Your task to perform on an android device: Open the Play Movies app and select the watchlist tab. Image 0: 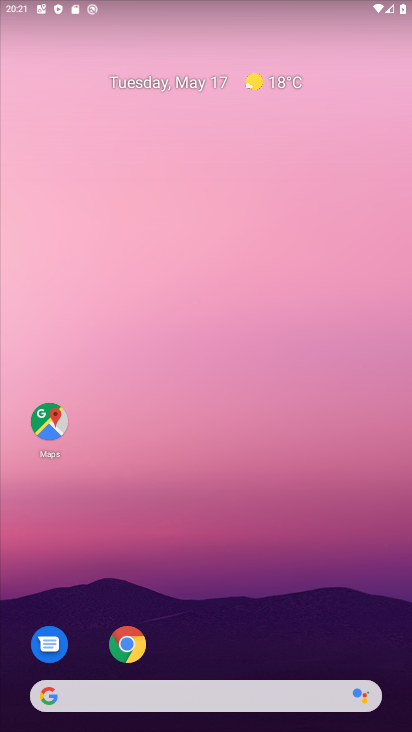
Step 0: drag from (186, 628) to (242, 111)
Your task to perform on an android device: Open the Play Movies app and select the watchlist tab. Image 1: 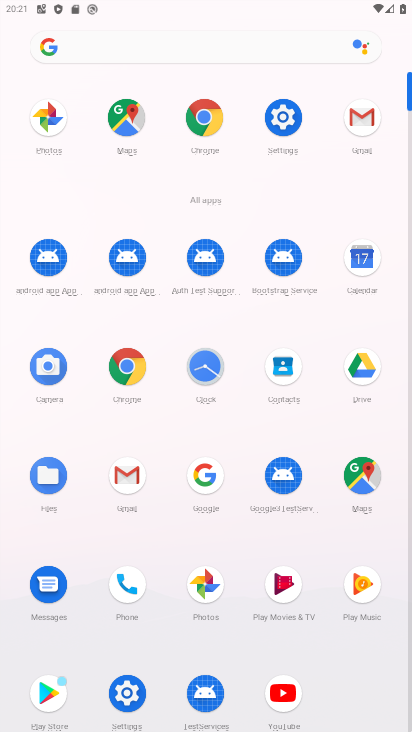
Step 1: click (280, 578)
Your task to perform on an android device: Open the Play Movies app and select the watchlist tab. Image 2: 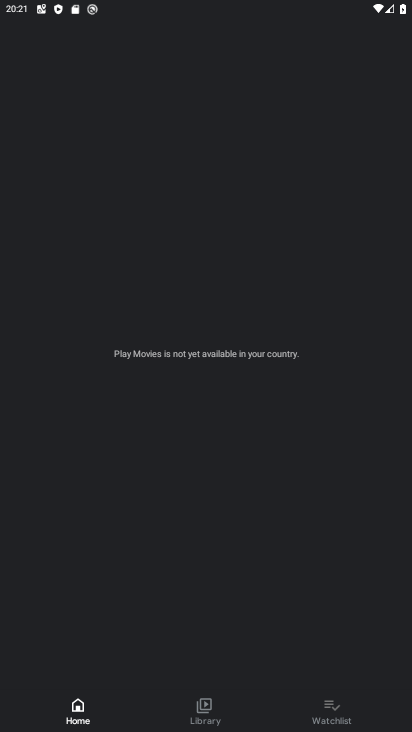
Step 2: click (314, 706)
Your task to perform on an android device: Open the Play Movies app and select the watchlist tab. Image 3: 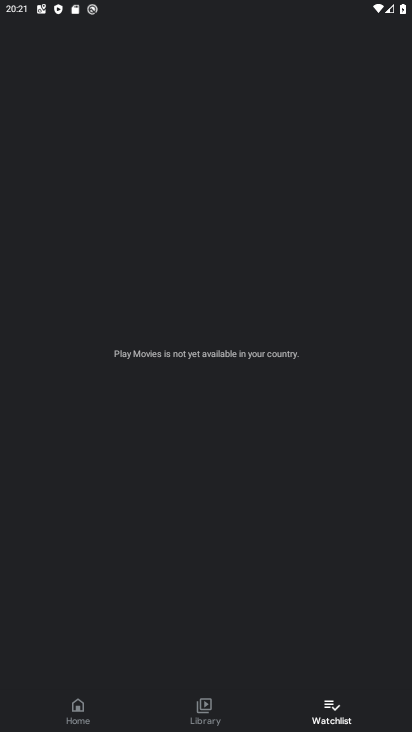
Step 3: task complete